Your task to perform on an android device: turn off sleep mode Image 0: 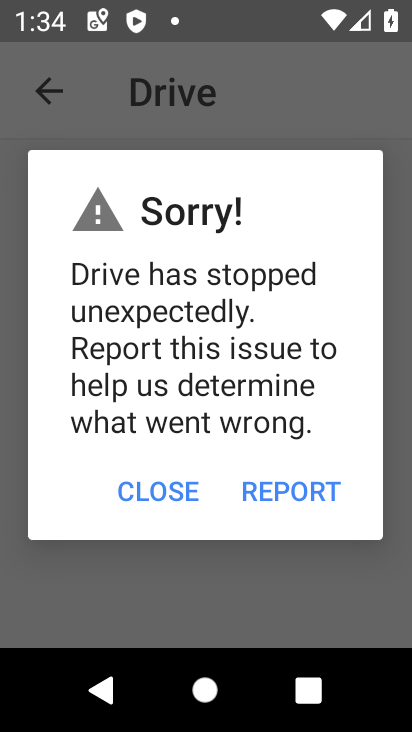
Step 0: press home button
Your task to perform on an android device: turn off sleep mode Image 1: 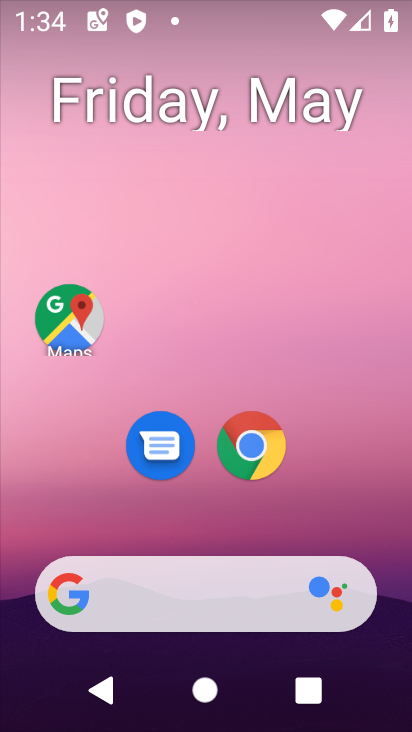
Step 1: drag from (392, 602) to (272, 72)
Your task to perform on an android device: turn off sleep mode Image 2: 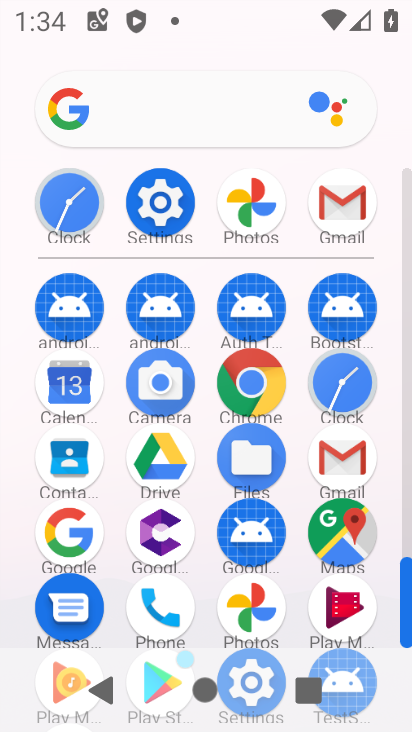
Step 2: click (409, 544)
Your task to perform on an android device: turn off sleep mode Image 3: 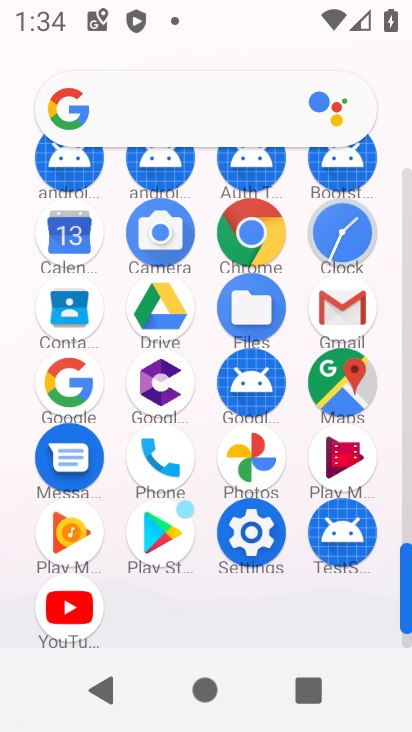
Step 3: click (253, 529)
Your task to perform on an android device: turn off sleep mode Image 4: 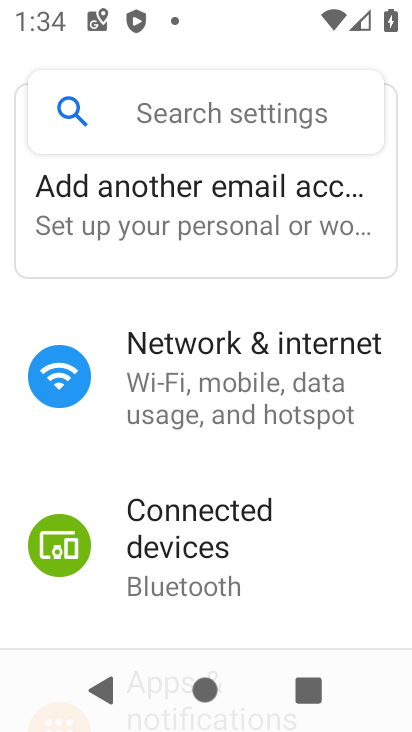
Step 4: drag from (293, 596) to (375, 103)
Your task to perform on an android device: turn off sleep mode Image 5: 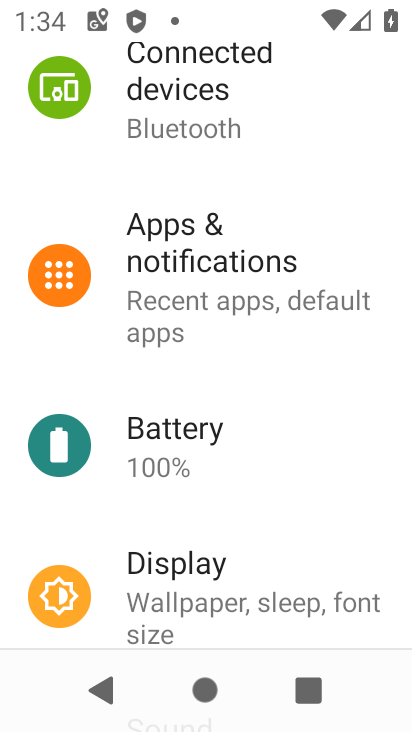
Step 5: click (196, 599)
Your task to perform on an android device: turn off sleep mode Image 6: 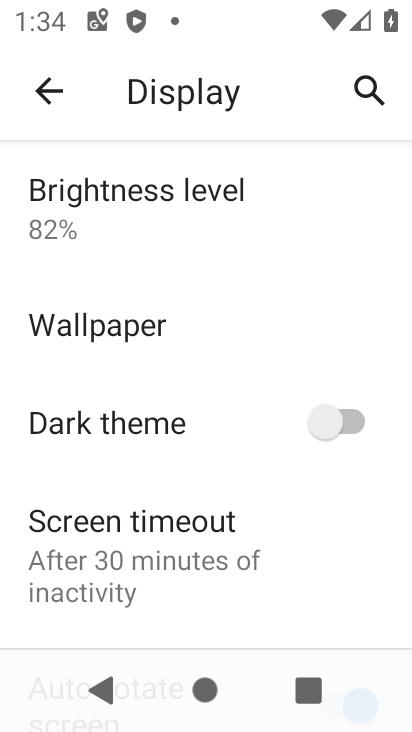
Step 6: drag from (160, 570) to (225, 216)
Your task to perform on an android device: turn off sleep mode Image 7: 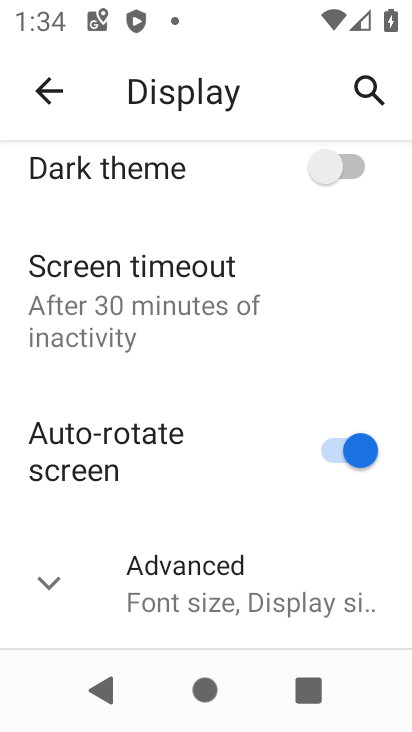
Step 7: click (41, 579)
Your task to perform on an android device: turn off sleep mode Image 8: 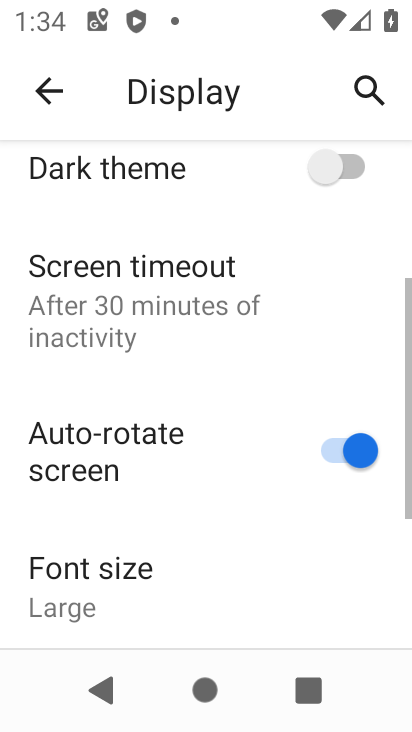
Step 8: task complete